Your task to perform on an android device: How much does a 3 bedroom apartment rent for in Miami? Image 0: 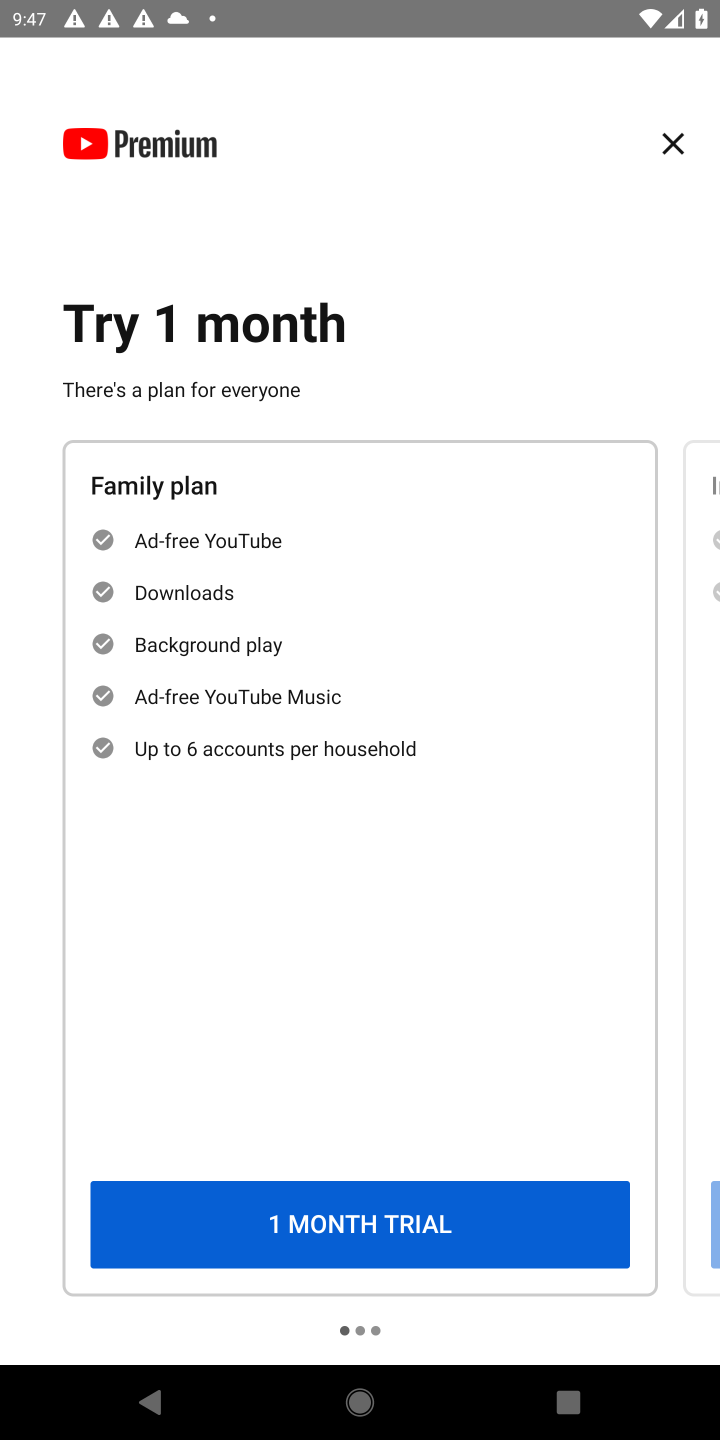
Step 0: press home button
Your task to perform on an android device: How much does a 3 bedroom apartment rent for in Miami? Image 1: 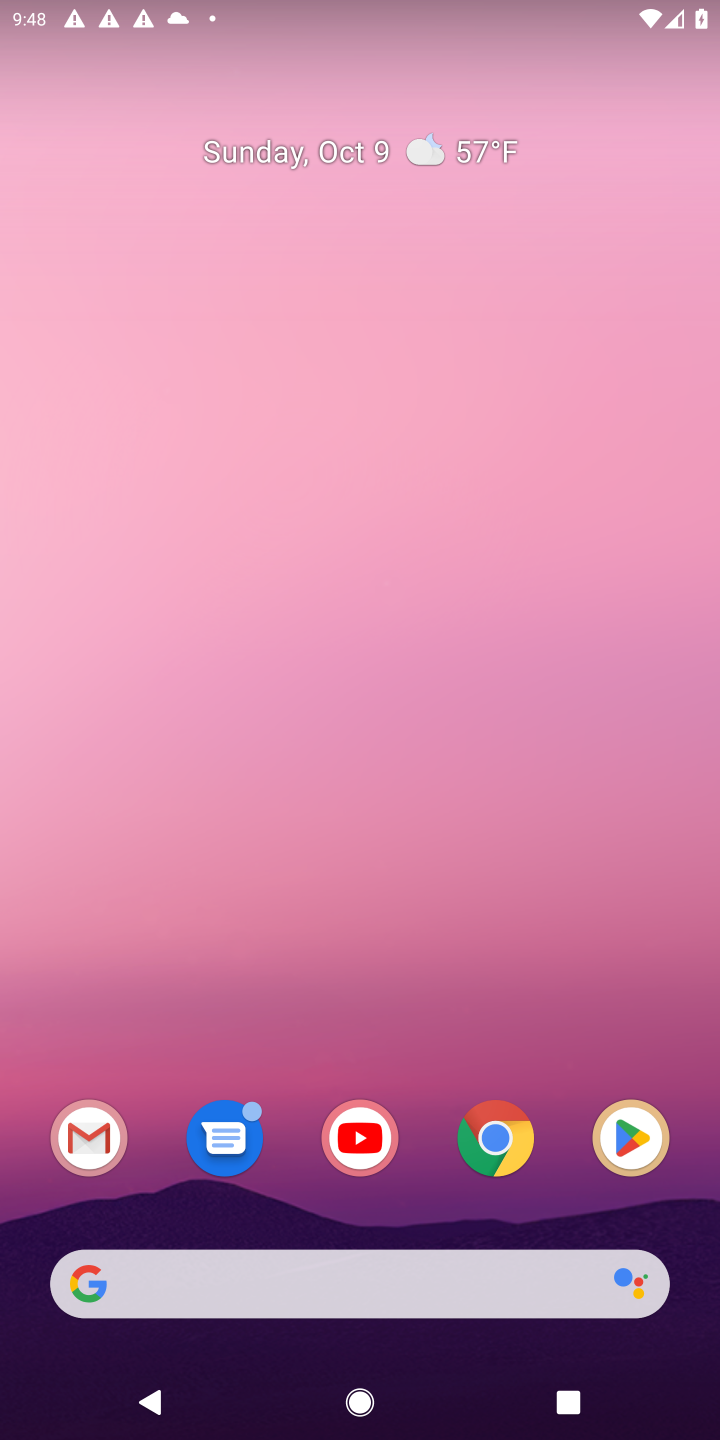
Step 1: click (480, 1121)
Your task to perform on an android device: How much does a 3 bedroom apartment rent for in Miami? Image 2: 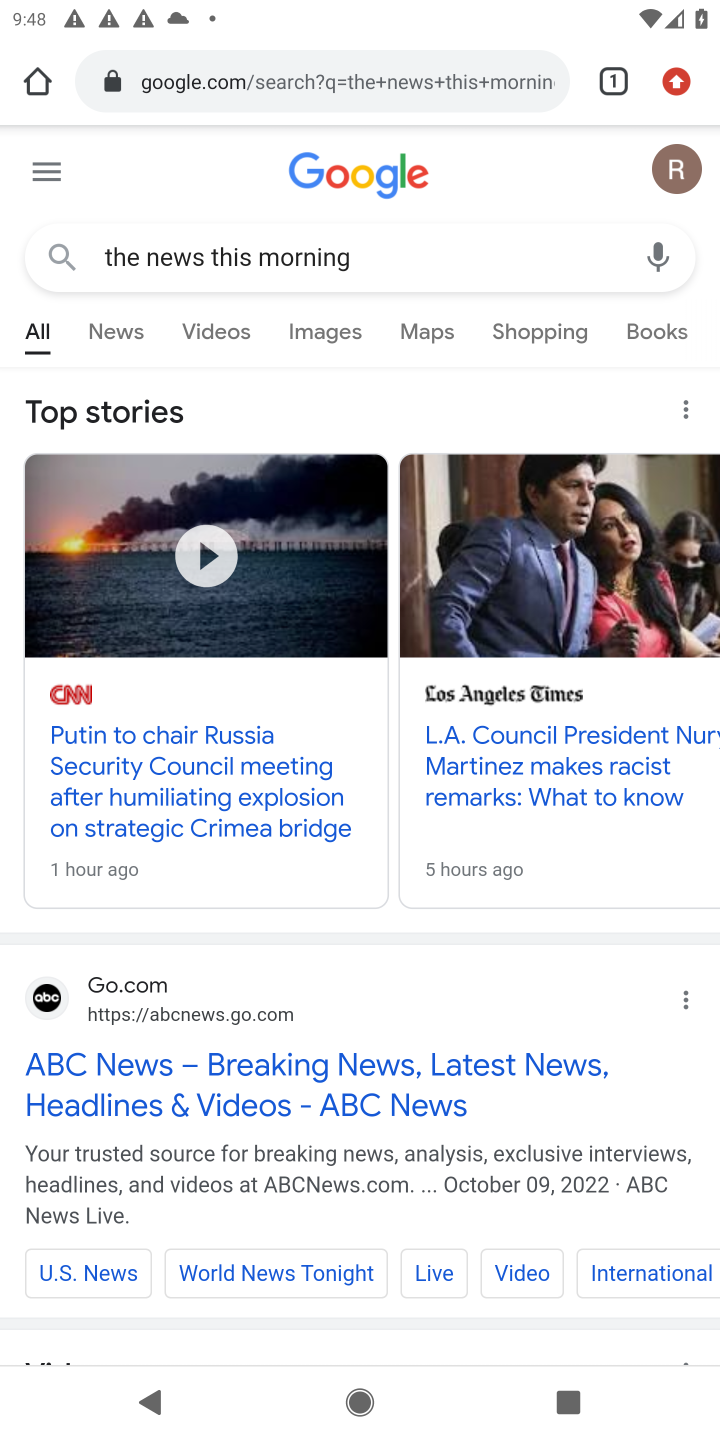
Step 2: click (449, 84)
Your task to perform on an android device: How much does a 3 bedroom apartment rent for in Miami? Image 3: 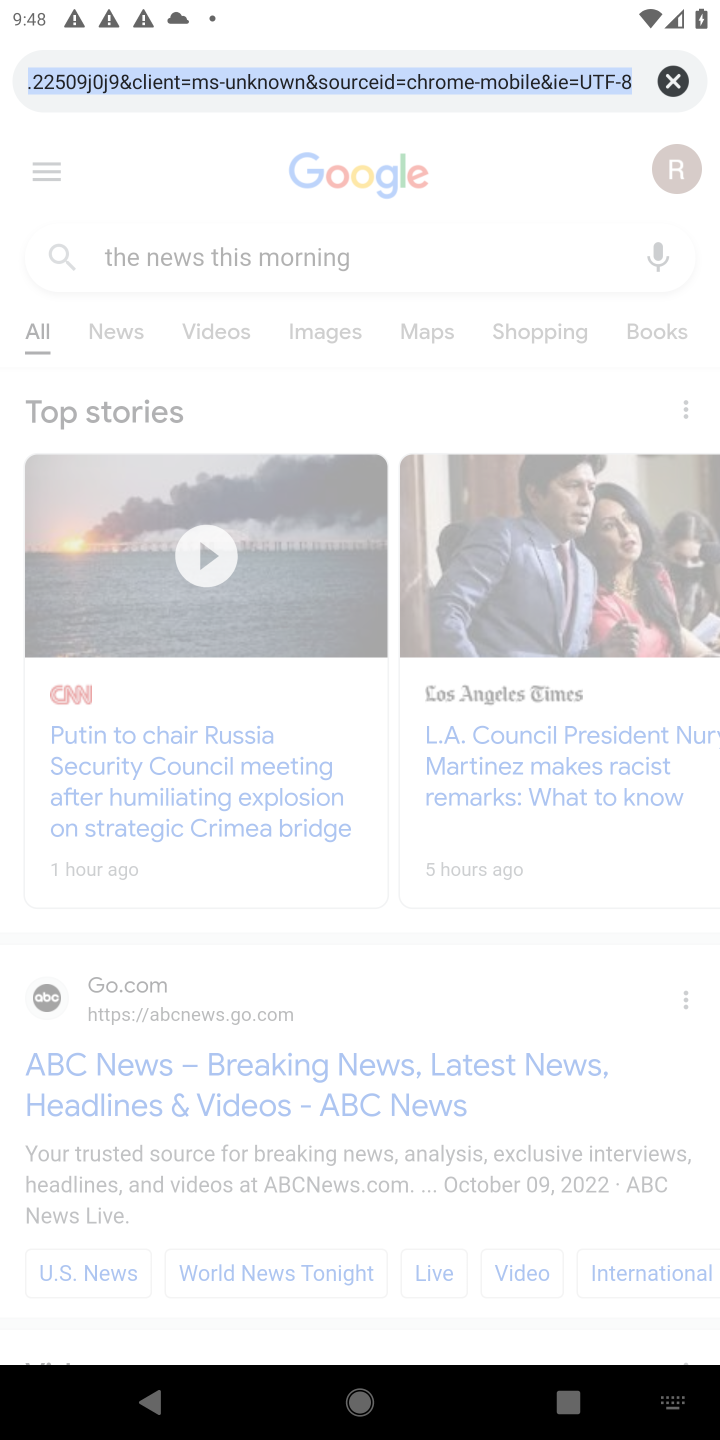
Step 3: click (669, 84)
Your task to perform on an android device: How much does a 3 bedroom apartment rent for in Miami? Image 4: 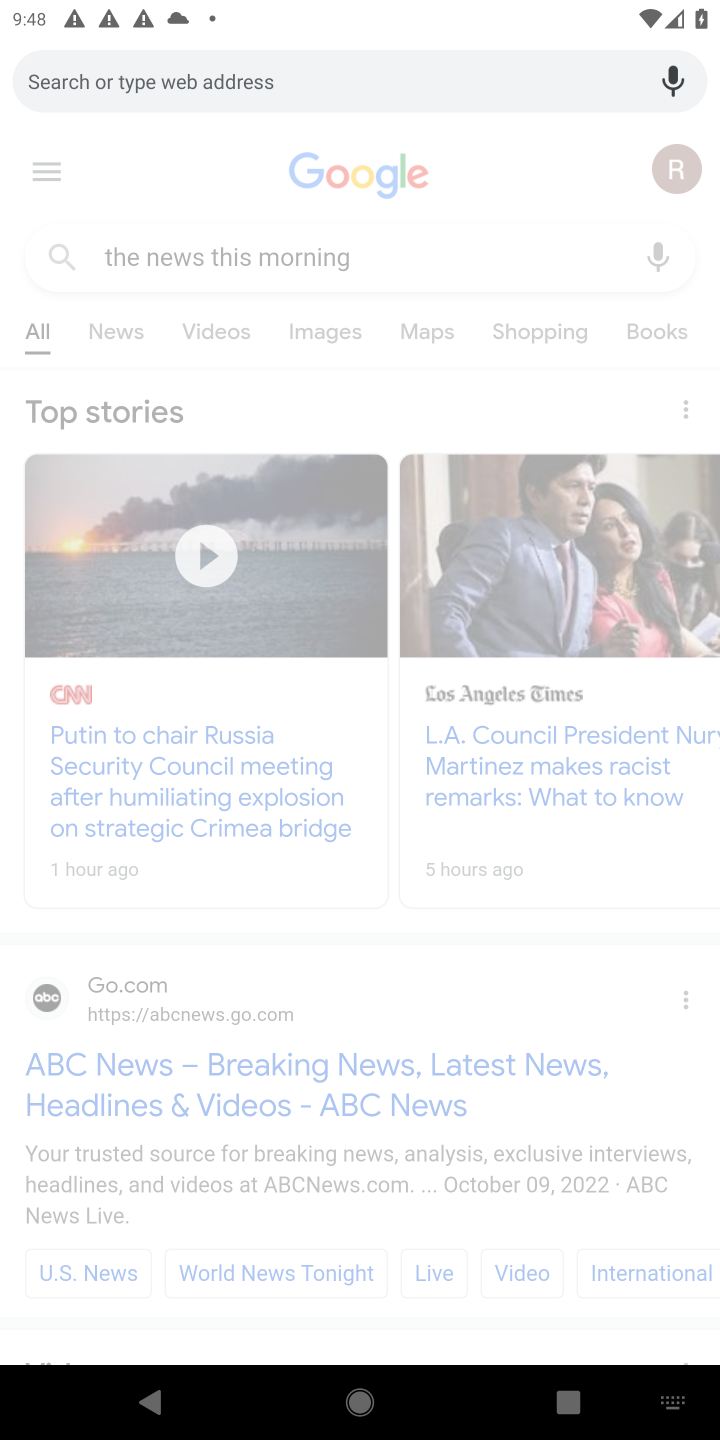
Step 4: click (329, 81)
Your task to perform on an android device: How much does a 3 bedroom apartment rent for in Miami? Image 5: 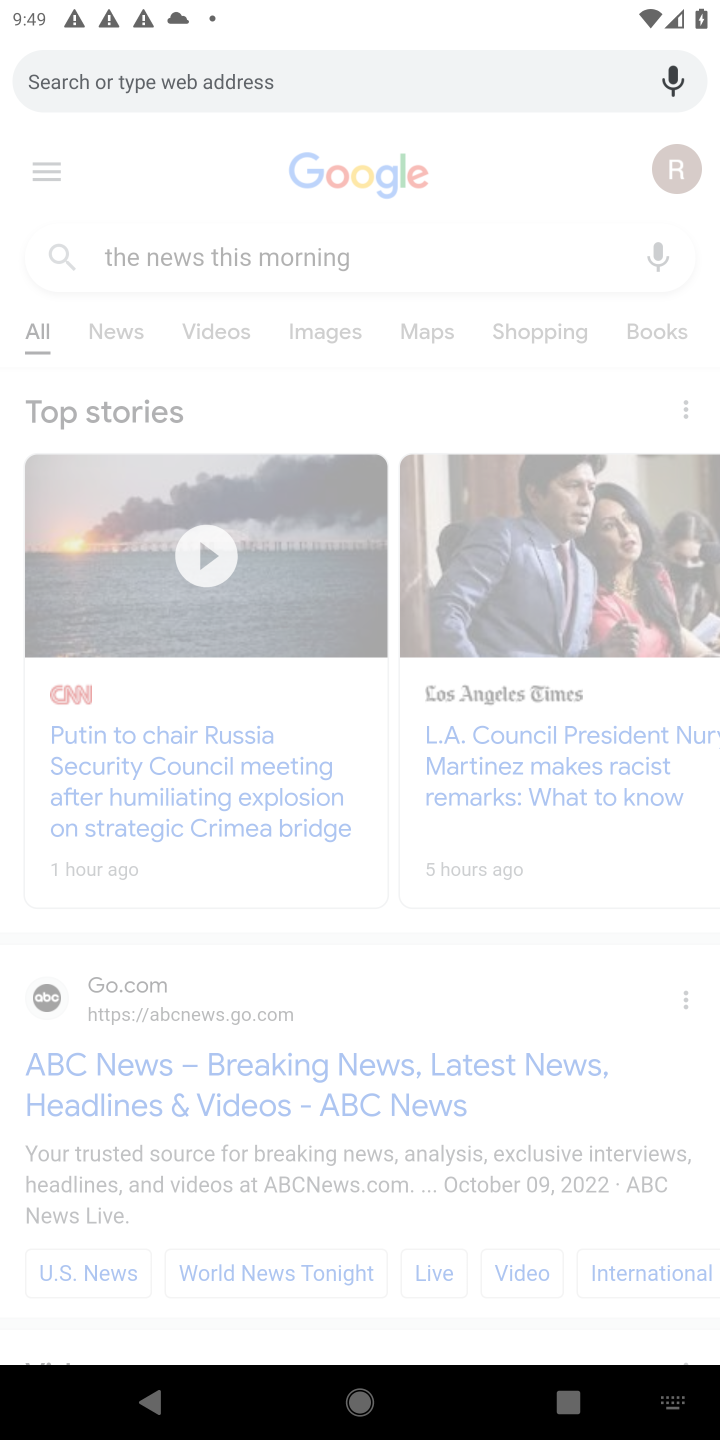
Step 5: type "how much does a 3 bedroom apartment rent for in miami?"
Your task to perform on an android device: How much does a 3 bedroom apartment rent for in Miami? Image 6: 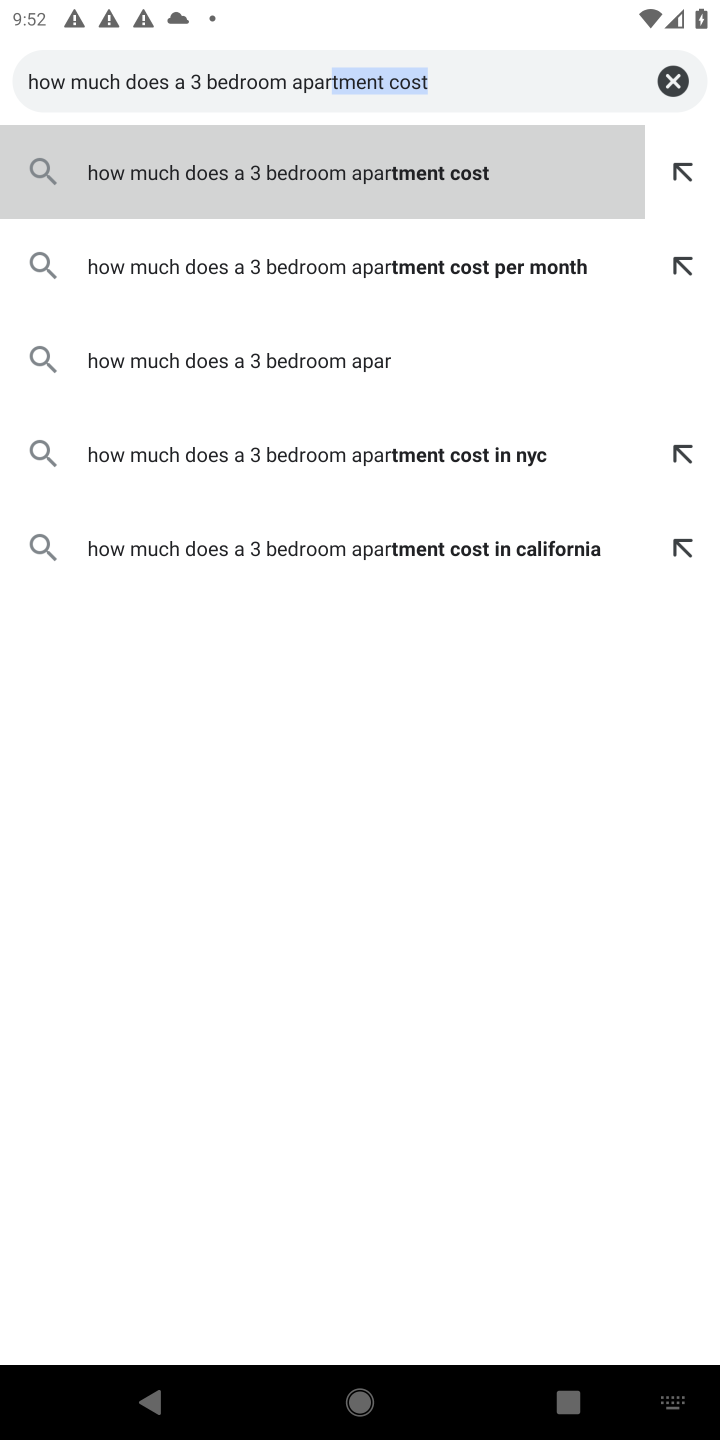
Step 6: click (450, 180)
Your task to perform on an android device: How much does a 3 bedroom apartment rent for in Miami? Image 7: 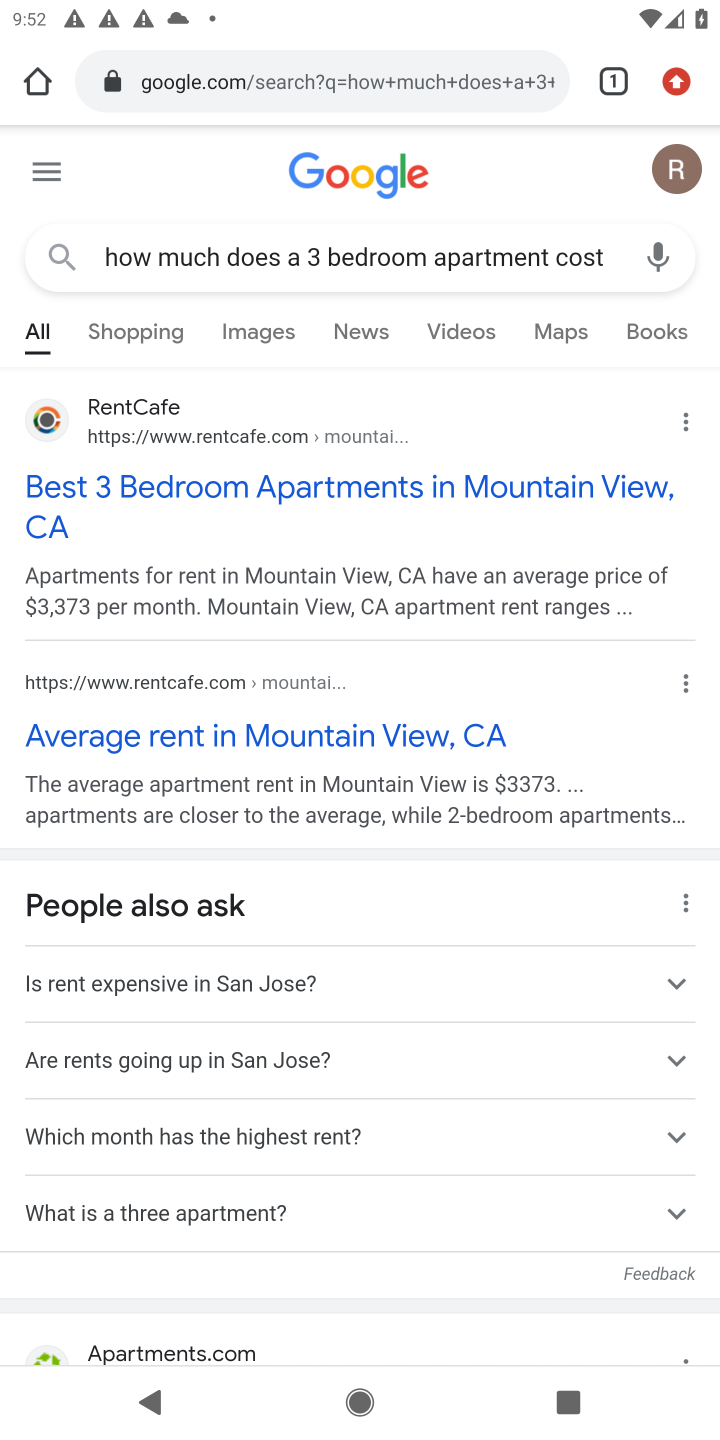
Step 7: task complete